Your task to perform on an android device: find which apps use the phone's location Image 0: 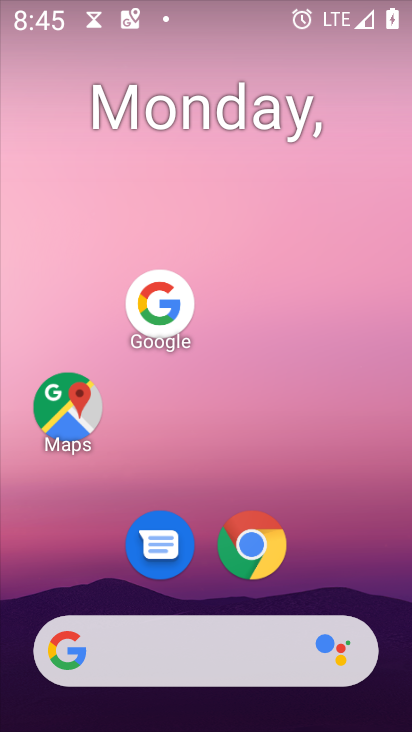
Step 0: press home button
Your task to perform on an android device: find which apps use the phone's location Image 1: 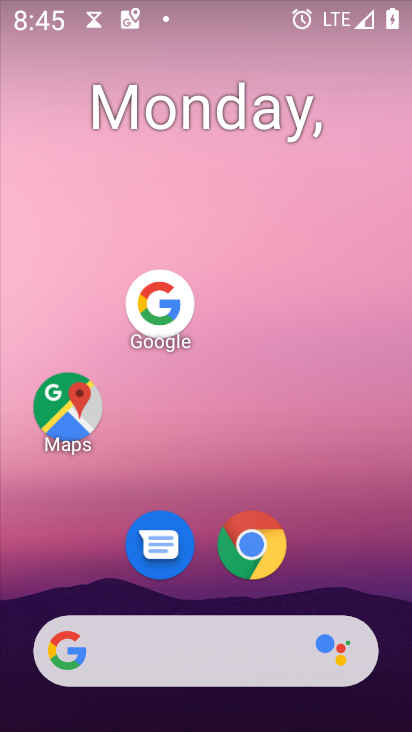
Step 1: drag from (178, 654) to (314, 138)
Your task to perform on an android device: find which apps use the phone's location Image 2: 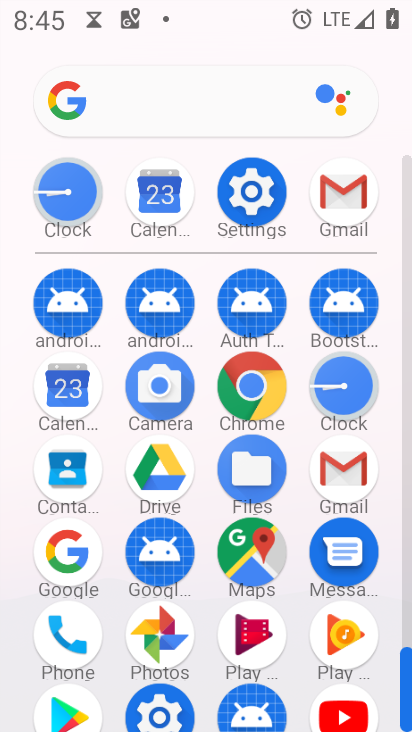
Step 2: click (250, 197)
Your task to perform on an android device: find which apps use the phone's location Image 3: 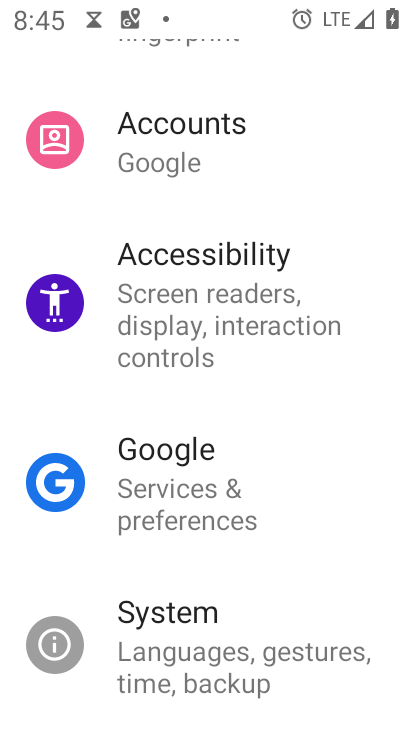
Step 3: drag from (318, 123) to (214, 623)
Your task to perform on an android device: find which apps use the phone's location Image 4: 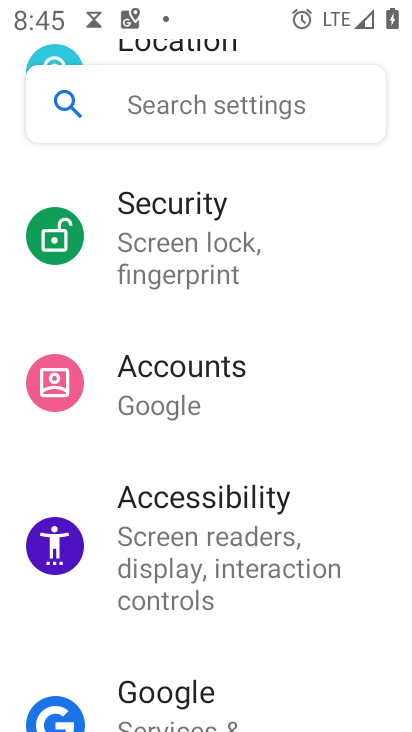
Step 4: drag from (322, 195) to (269, 676)
Your task to perform on an android device: find which apps use the phone's location Image 5: 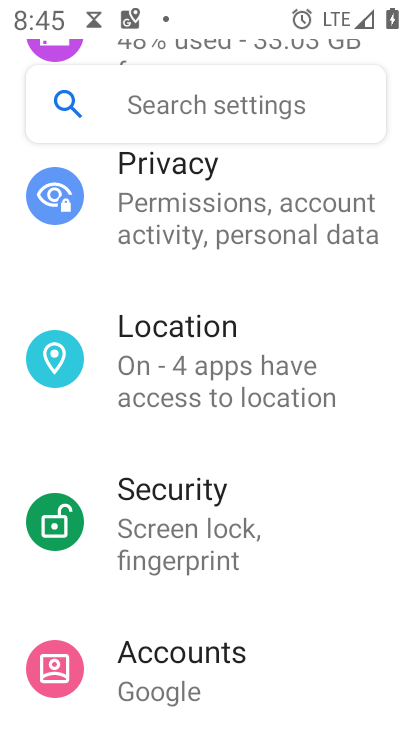
Step 5: click (189, 351)
Your task to perform on an android device: find which apps use the phone's location Image 6: 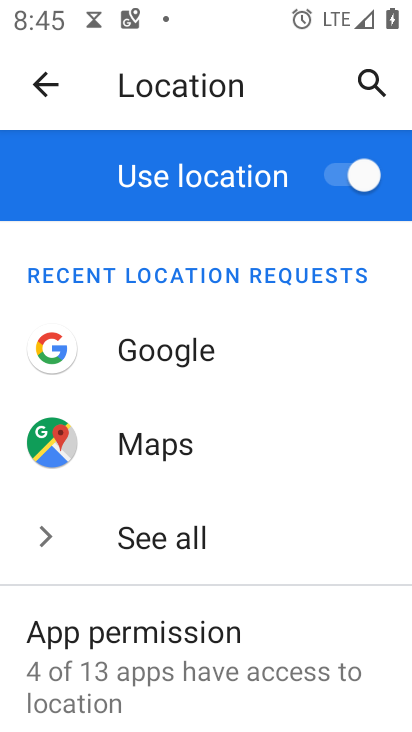
Step 6: drag from (243, 689) to (335, 235)
Your task to perform on an android device: find which apps use the phone's location Image 7: 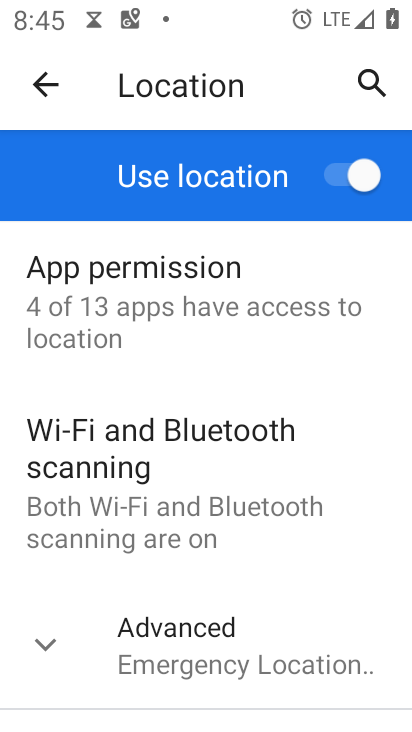
Step 7: drag from (206, 622) to (311, 268)
Your task to perform on an android device: find which apps use the phone's location Image 8: 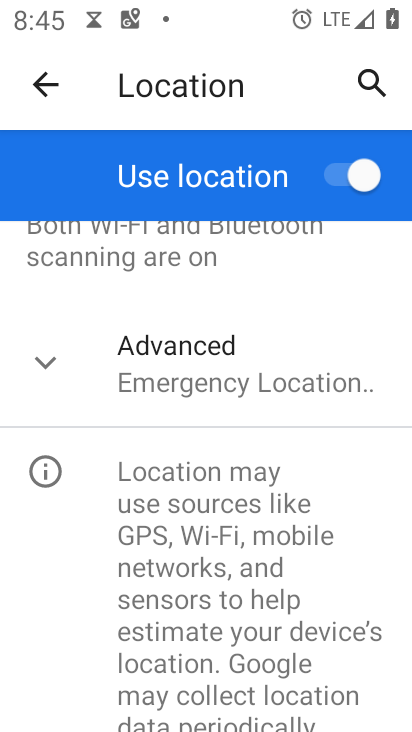
Step 8: drag from (317, 351) to (281, 687)
Your task to perform on an android device: find which apps use the phone's location Image 9: 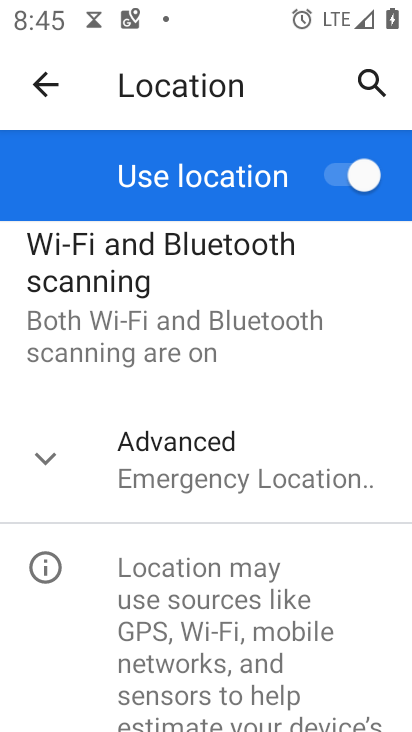
Step 9: drag from (345, 271) to (295, 663)
Your task to perform on an android device: find which apps use the phone's location Image 10: 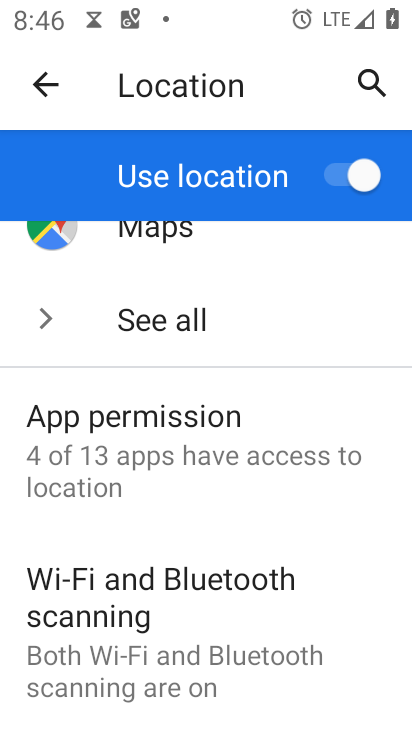
Step 10: click (157, 414)
Your task to perform on an android device: find which apps use the phone's location Image 11: 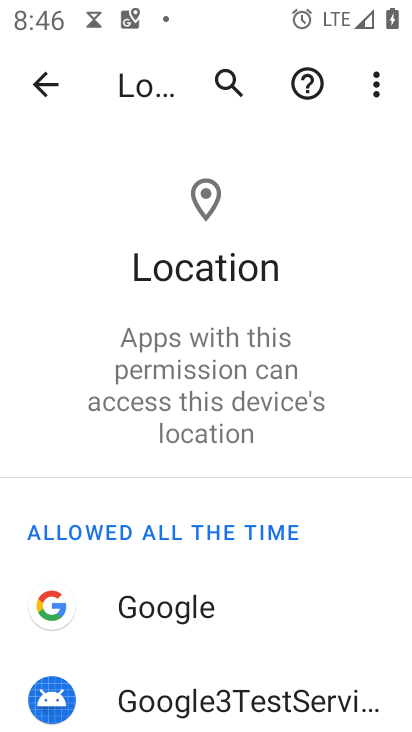
Step 11: drag from (173, 683) to (316, 135)
Your task to perform on an android device: find which apps use the phone's location Image 12: 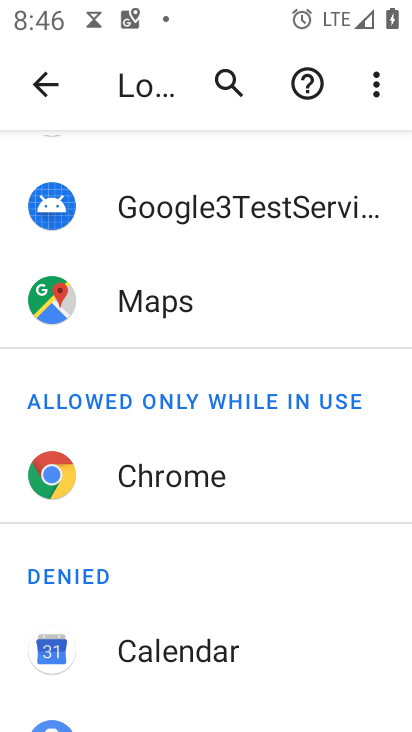
Step 12: drag from (280, 692) to (362, 158)
Your task to perform on an android device: find which apps use the phone's location Image 13: 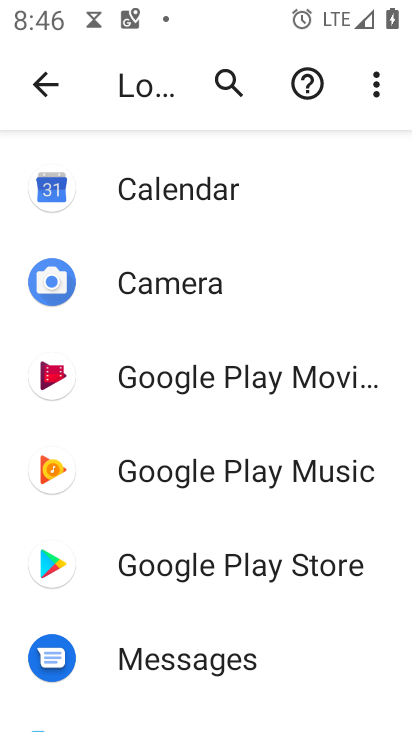
Step 13: drag from (182, 711) to (307, 201)
Your task to perform on an android device: find which apps use the phone's location Image 14: 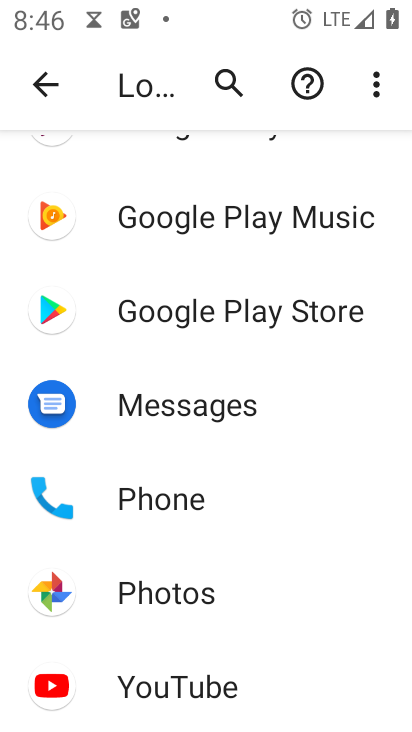
Step 14: click (180, 503)
Your task to perform on an android device: find which apps use the phone's location Image 15: 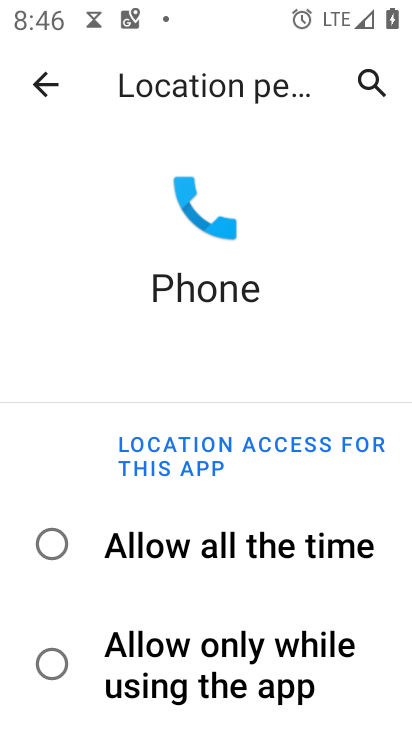
Step 15: task complete